Your task to perform on an android device: Search for seafood restaurants on Google Maps Image 0: 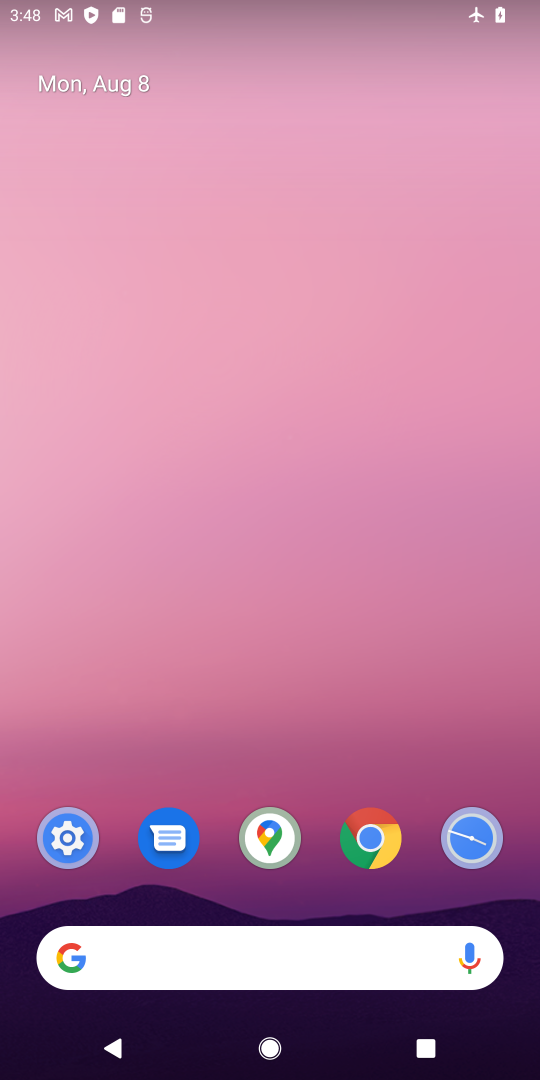
Step 0: click (272, 831)
Your task to perform on an android device: Search for seafood restaurants on Google Maps Image 1: 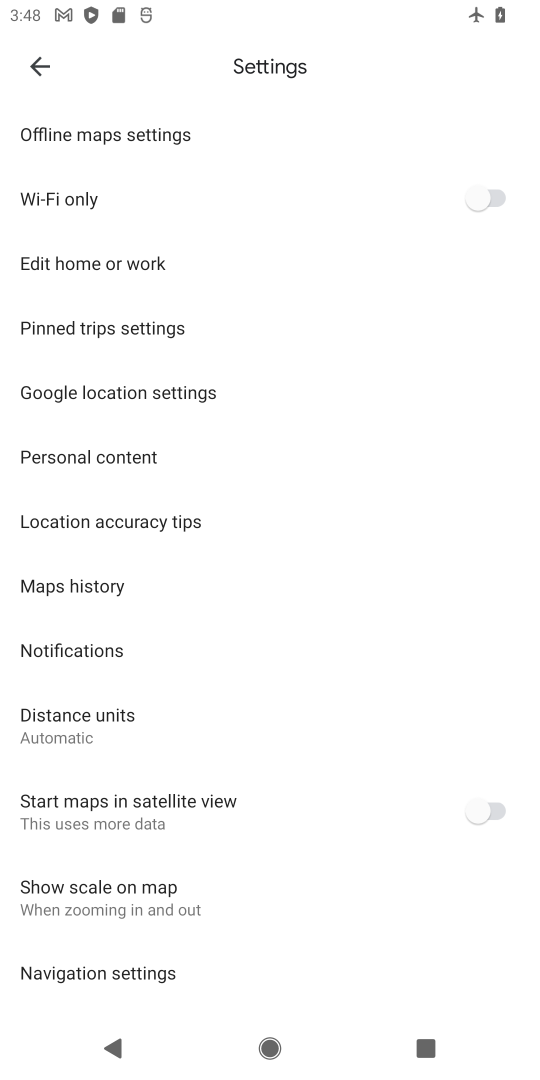
Step 1: press back button
Your task to perform on an android device: Search for seafood restaurants on Google Maps Image 2: 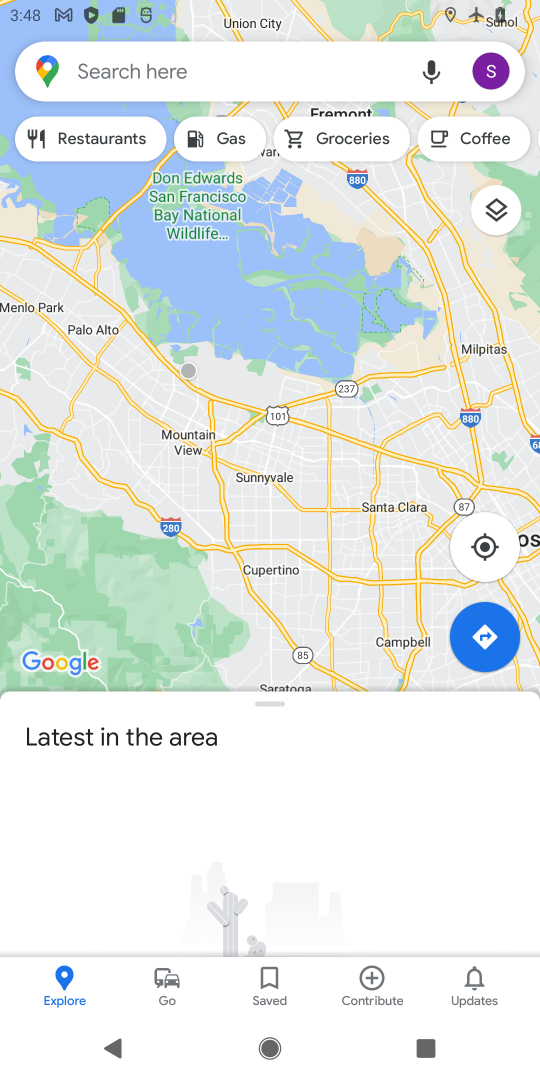
Step 2: click (299, 67)
Your task to perform on an android device: Search for seafood restaurants on Google Maps Image 3: 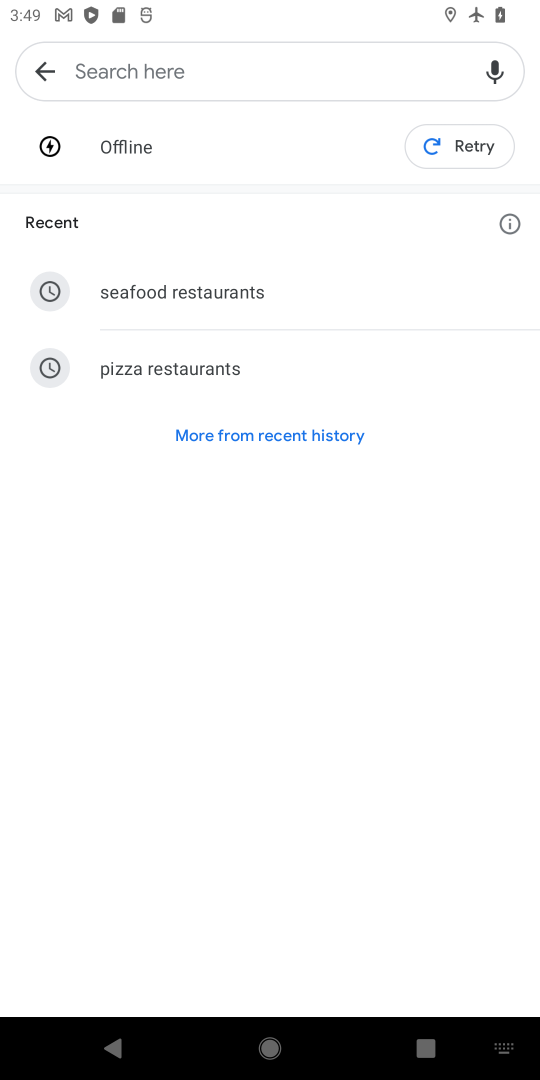
Step 3: type "seafood restaurants"
Your task to perform on an android device: Search for seafood restaurants on Google Maps Image 4: 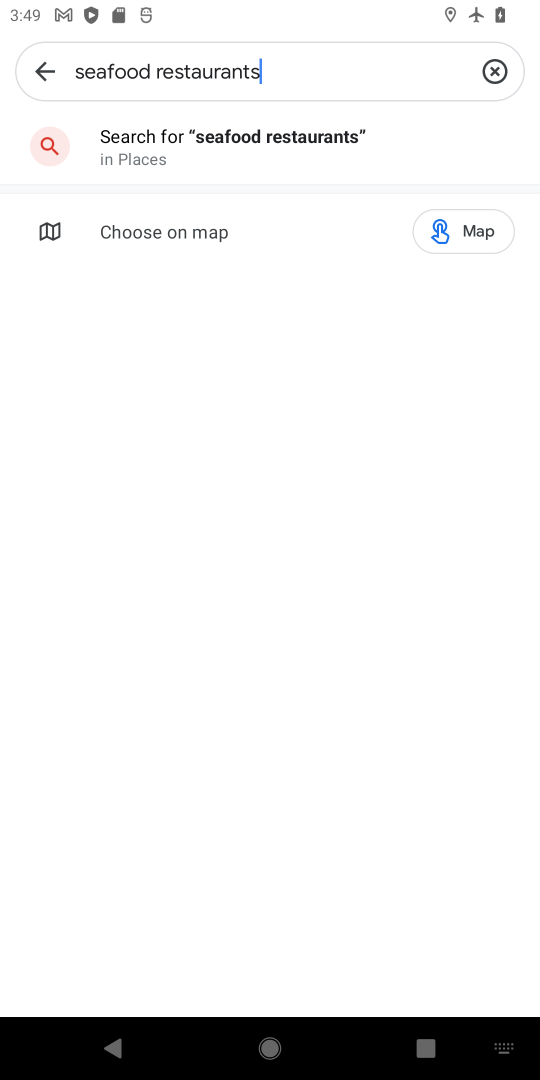
Step 4: task complete